Your task to perform on an android device: Open Wikipedia Image 0: 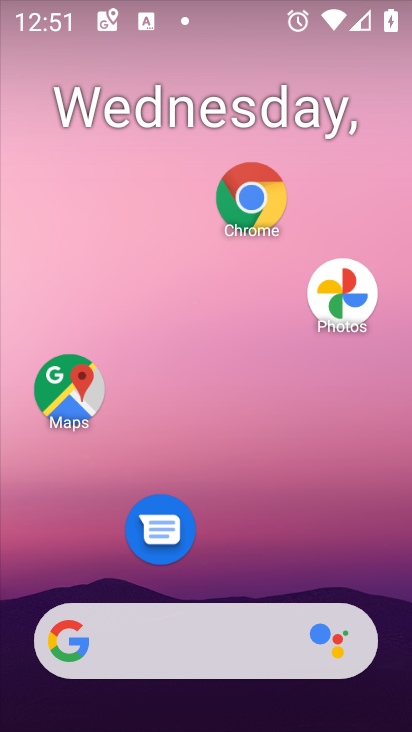
Step 0: drag from (282, 491) to (283, 109)
Your task to perform on an android device: Open Wikipedia Image 1: 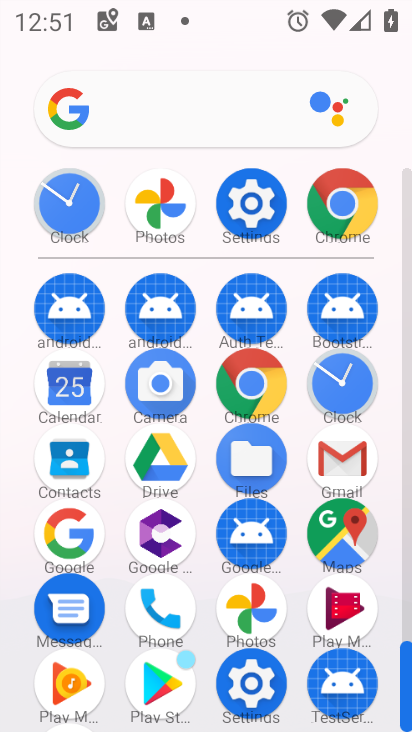
Step 1: click (354, 199)
Your task to perform on an android device: Open Wikipedia Image 2: 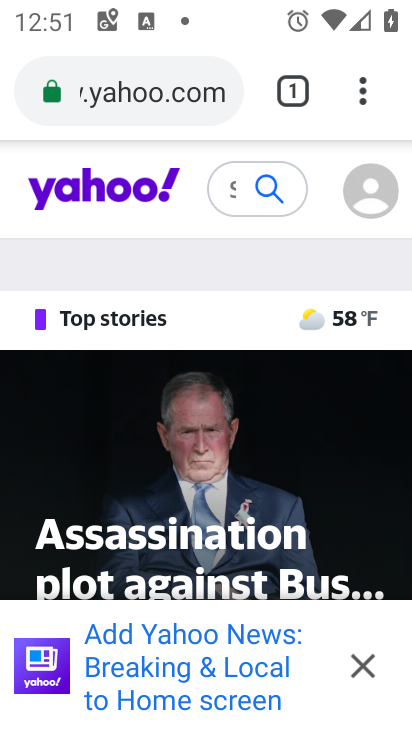
Step 2: click (205, 116)
Your task to perform on an android device: Open Wikipedia Image 3: 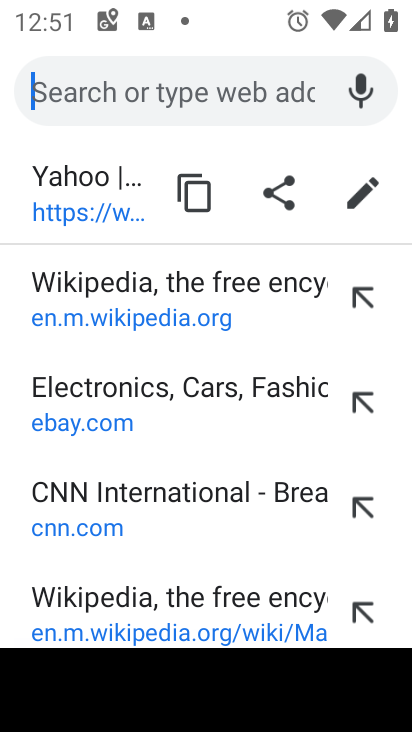
Step 3: click (193, 306)
Your task to perform on an android device: Open Wikipedia Image 4: 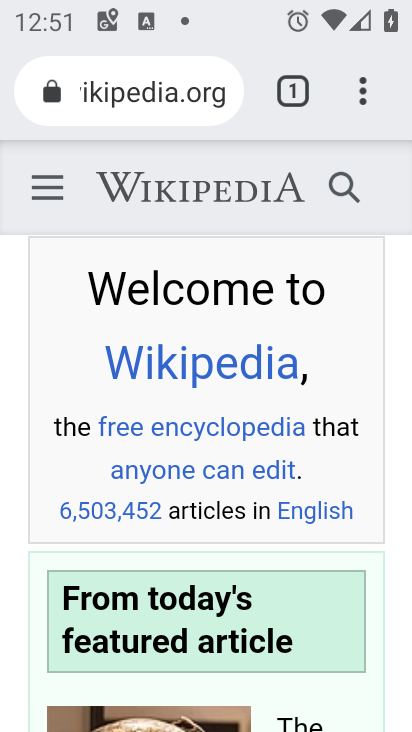
Step 4: task complete